Your task to perform on an android device: Search for vegetarian restaurants on Maps Image 0: 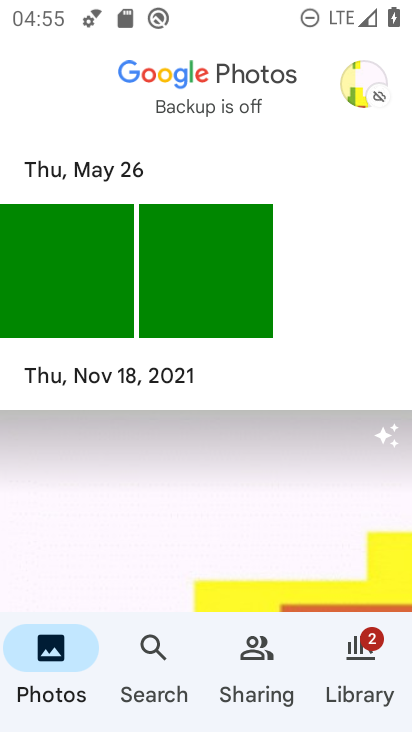
Step 0: press home button
Your task to perform on an android device: Search for vegetarian restaurants on Maps Image 1: 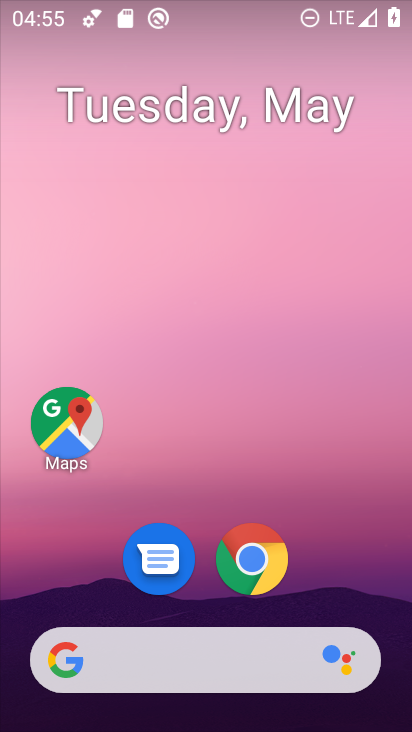
Step 1: drag from (216, 726) to (222, 144)
Your task to perform on an android device: Search for vegetarian restaurants on Maps Image 2: 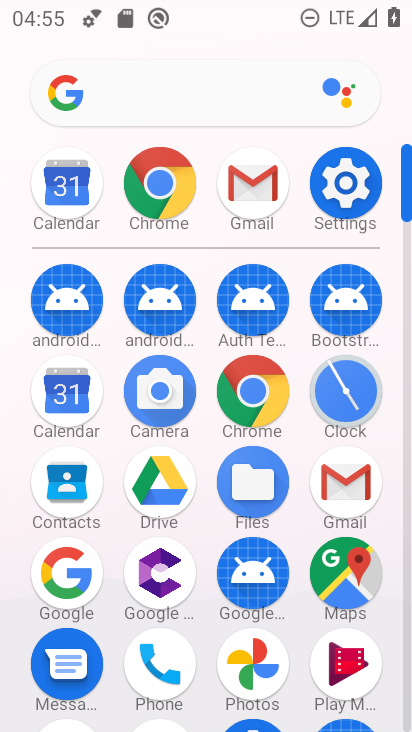
Step 2: click (347, 579)
Your task to perform on an android device: Search for vegetarian restaurants on Maps Image 3: 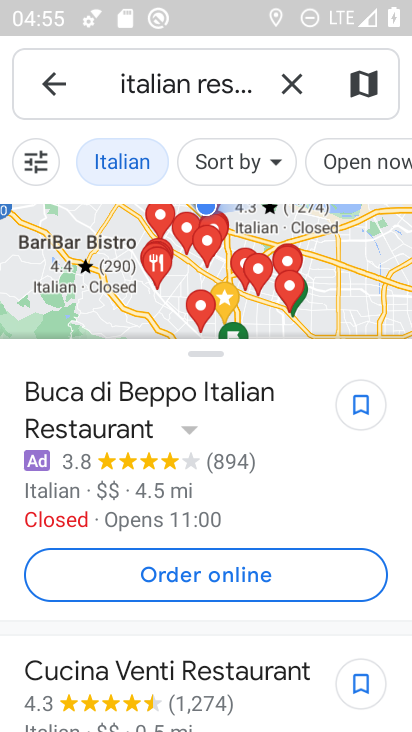
Step 3: click (293, 86)
Your task to perform on an android device: Search for vegetarian restaurants on Maps Image 4: 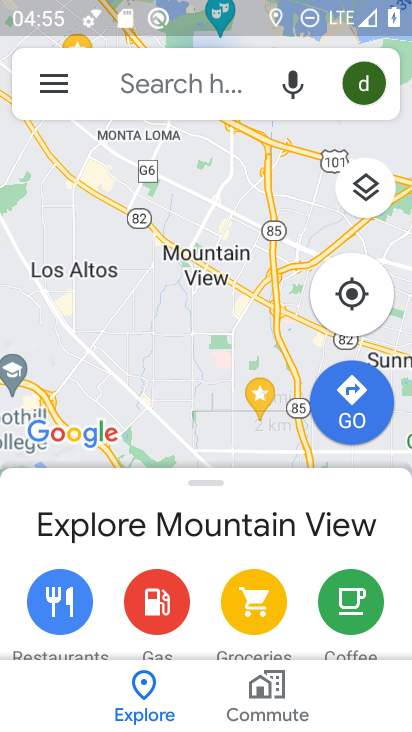
Step 4: click (135, 81)
Your task to perform on an android device: Search for vegetarian restaurants on Maps Image 5: 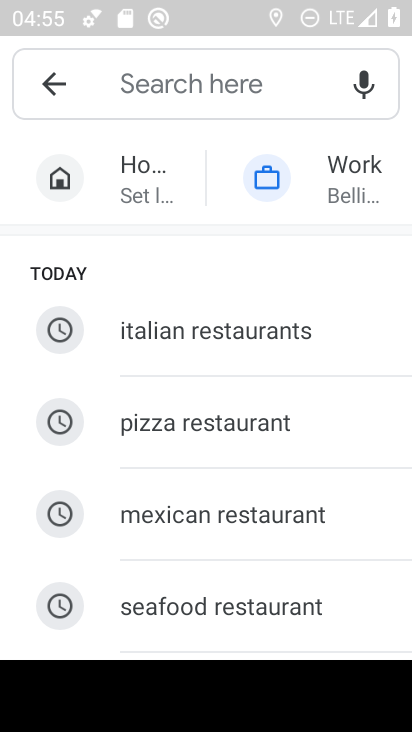
Step 5: type "vegetarian restaurants"
Your task to perform on an android device: Search for vegetarian restaurants on Maps Image 6: 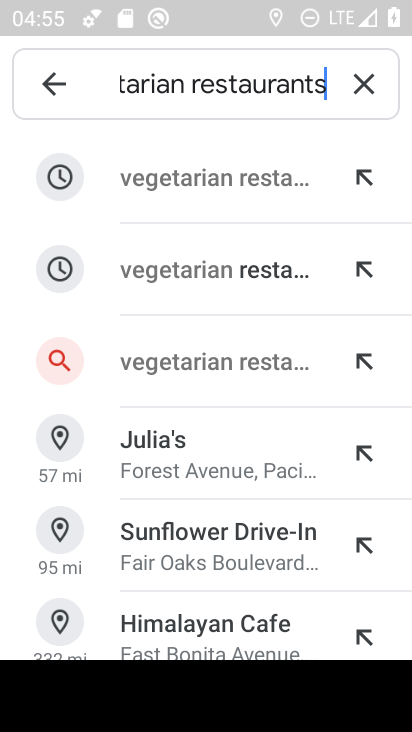
Step 6: click (194, 185)
Your task to perform on an android device: Search for vegetarian restaurants on Maps Image 7: 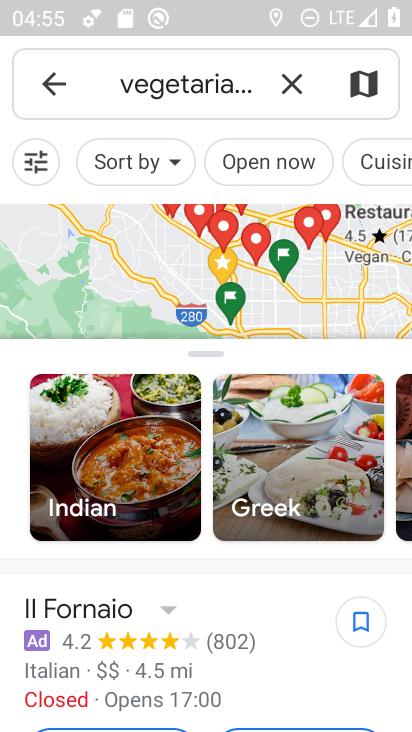
Step 7: task complete